Your task to perform on an android device: turn off notifications settings in the gmail app Image 0: 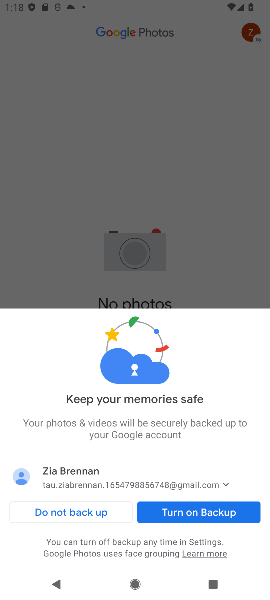
Step 0: click (97, 505)
Your task to perform on an android device: turn off notifications settings in the gmail app Image 1: 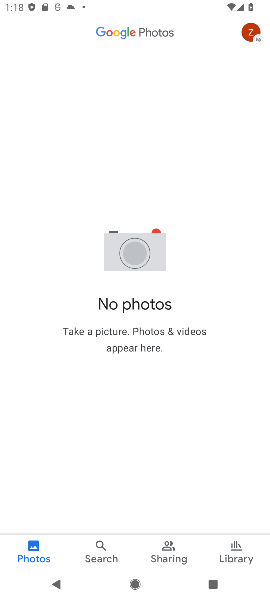
Step 1: task complete